Your task to perform on an android device: turn on sleep mode Image 0: 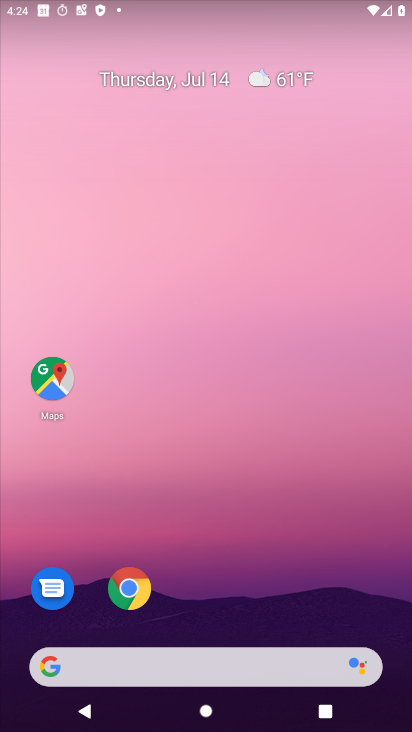
Step 0: drag from (204, 673) to (336, 91)
Your task to perform on an android device: turn on sleep mode Image 1: 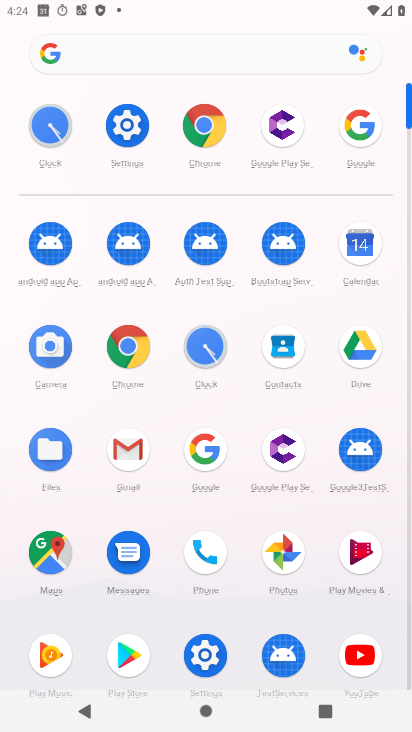
Step 1: click (127, 124)
Your task to perform on an android device: turn on sleep mode Image 2: 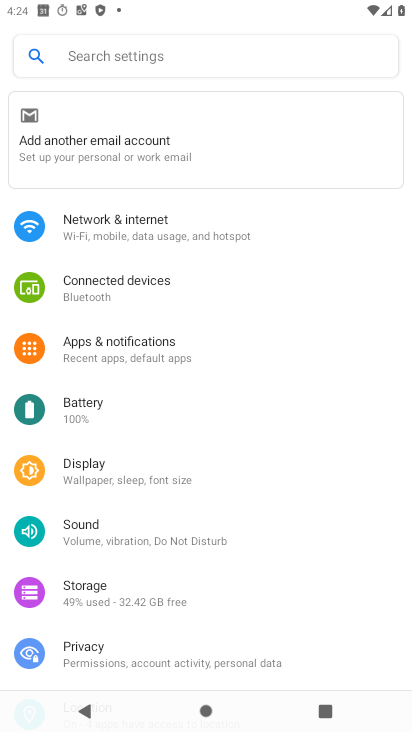
Step 2: click (98, 473)
Your task to perform on an android device: turn on sleep mode Image 3: 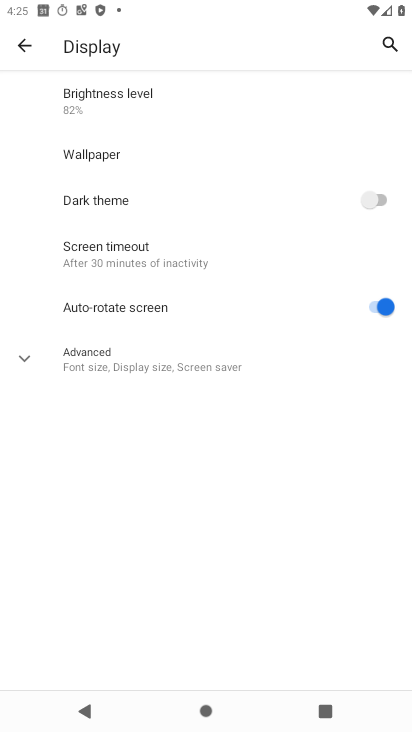
Step 3: click (79, 367)
Your task to perform on an android device: turn on sleep mode Image 4: 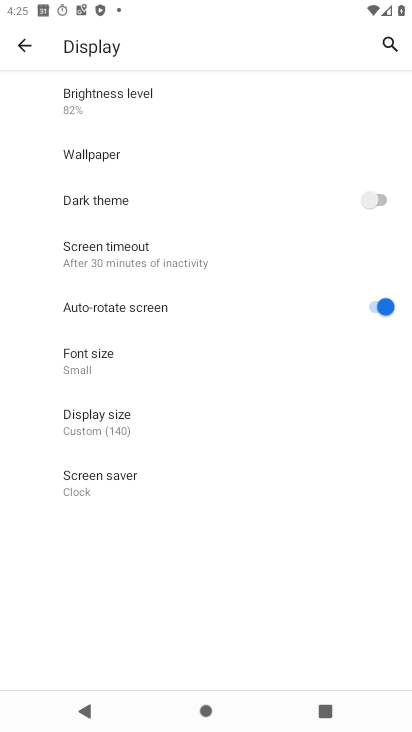
Step 4: press back button
Your task to perform on an android device: turn on sleep mode Image 5: 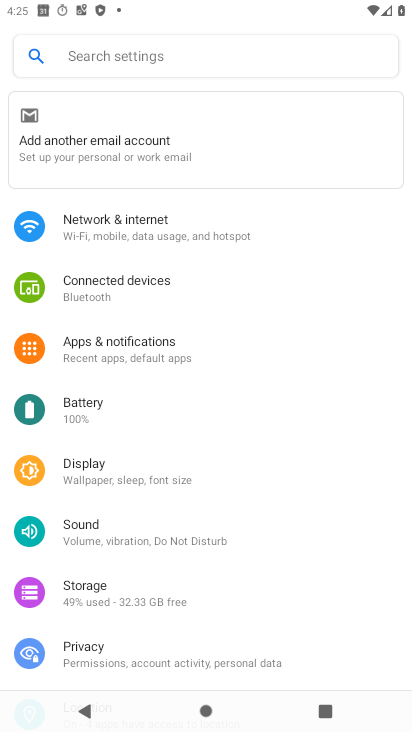
Step 5: click (109, 411)
Your task to perform on an android device: turn on sleep mode Image 6: 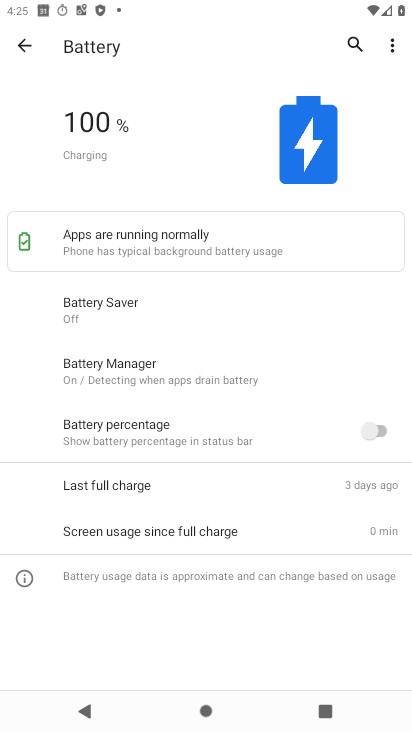
Step 6: task complete